Your task to perform on an android device: Open Google Chrome Image 0: 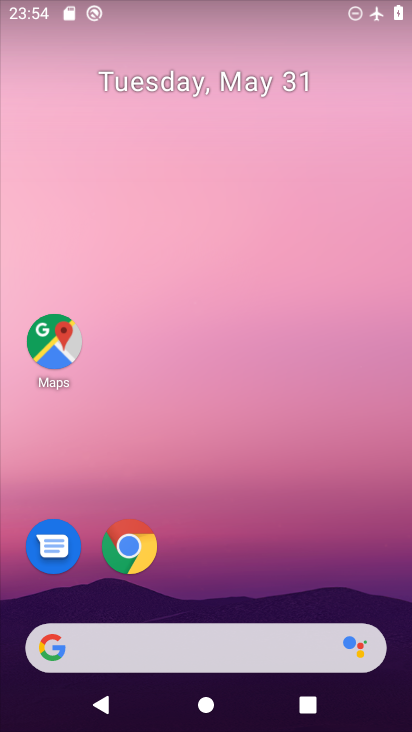
Step 0: click (128, 541)
Your task to perform on an android device: Open Google Chrome Image 1: 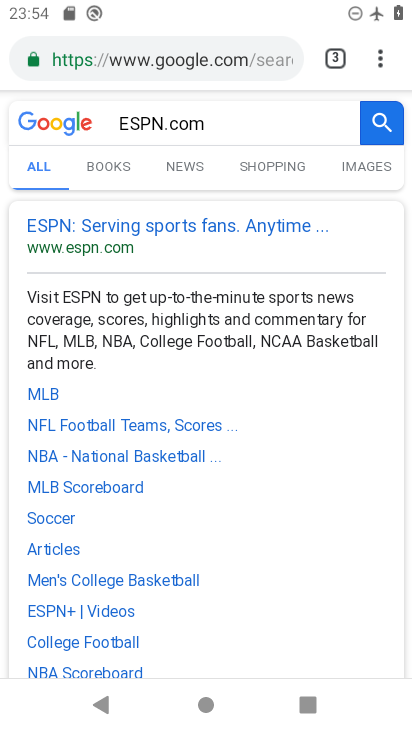
Step 1: task complete